Your task to perform on an android device: turn smart compose on in the gmail app Image 0: 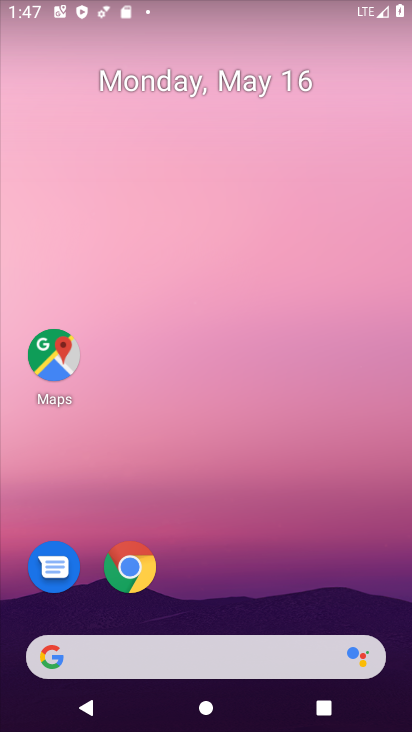
Step 0: drag from (240, 612) to (206, 139)
Your task to perform on an android device: turn smart compose on in the gmail app Image 1: 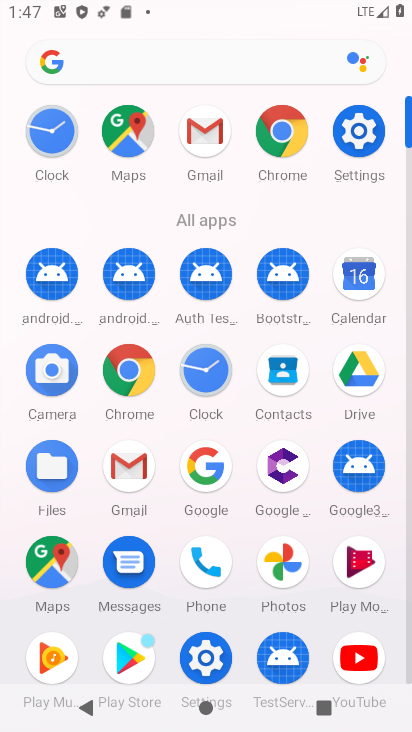
Step 1: click (201, 126)
Your task to perform on an android device: turn smart compose on in the gmail app Image 2: 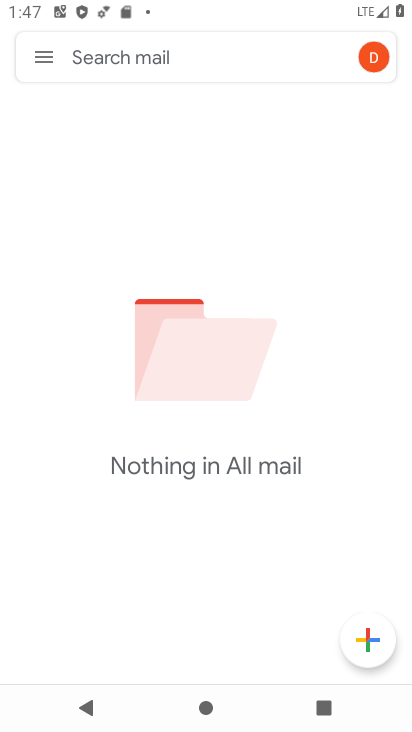
Step 2: click (43, 47)
Your task to perform on an android device: turn smart compose on in the gmail app Image 3: 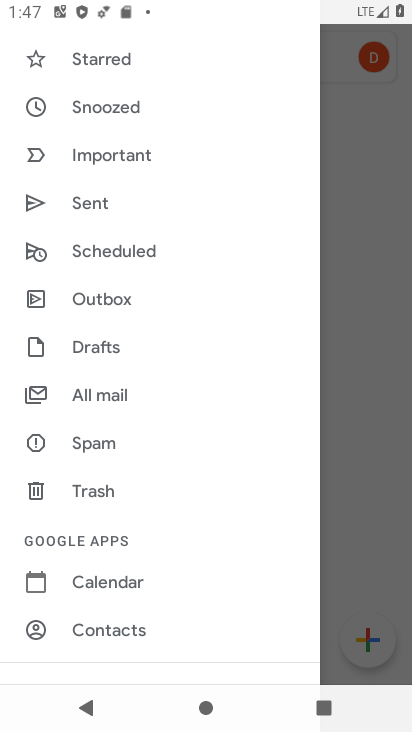
Step 3: drag from (103, 661) to (81, 146)
Your task to perform on an android device: turn smart compose on in the gmail app Image 4: 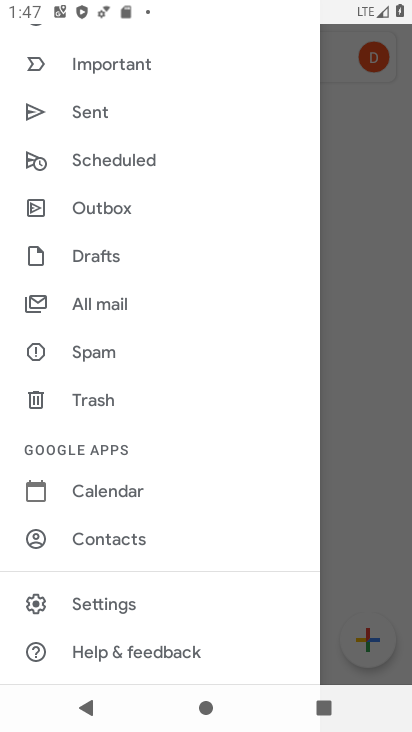
Step 4: click (123, 608)
Your task to perform on an android device: turn smart compose on in the gmail app Image 5: 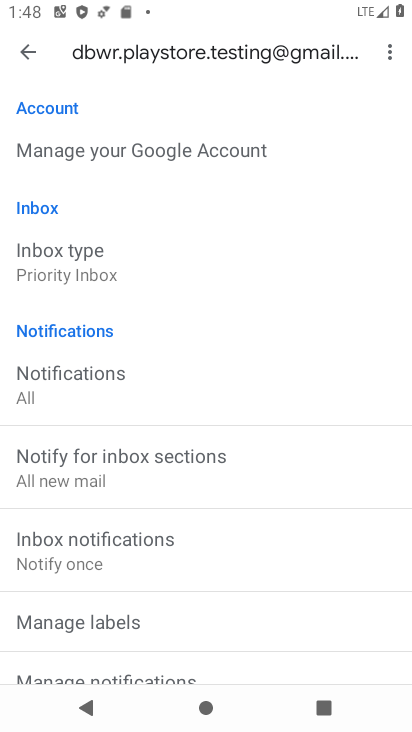
Step 5: task complete